Your task to perform on an android device: Open the calendar app, open the side menu, and click the "Day" option Image 0: 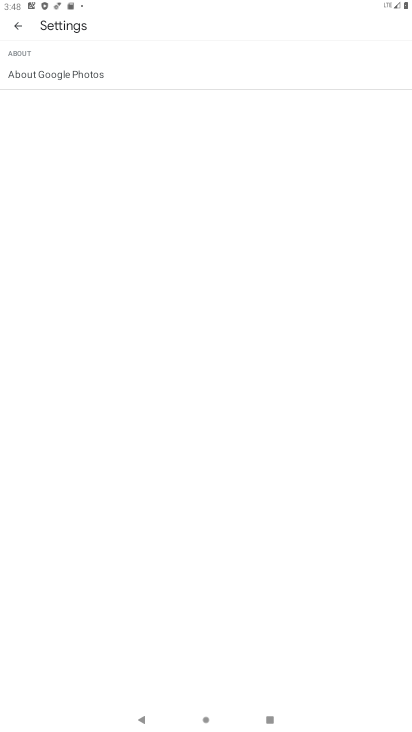
Step 0: press home button
Your task to perform on an android device: Open the calendar app, open the side menu, and click the "Day" option Image 1: 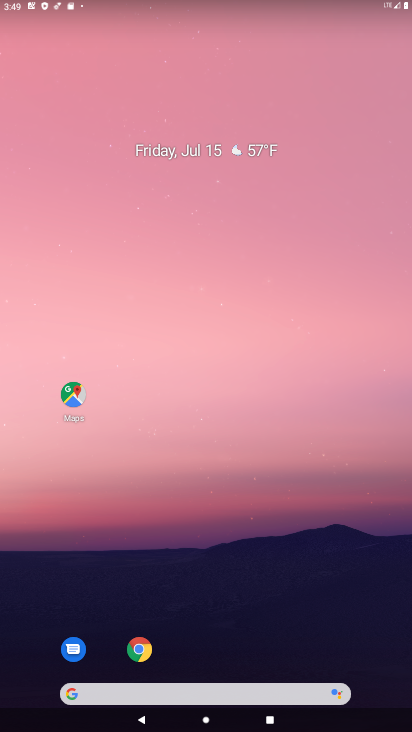
Step 1: drag from (214, 727) to (235, 180)
Your task to perform on an android device: Open the calendar app, open the side menu, and click the "Day" option Image 2: 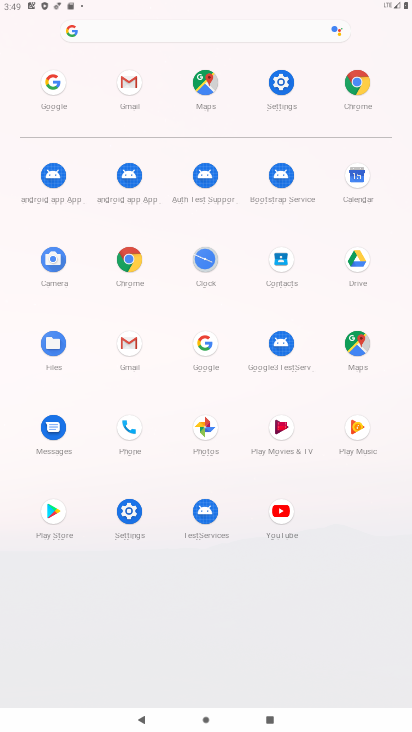
Step 2: click (359, 171)
Your task to perform on an android device: Open the calendar app, open the side menu, and click the "Day" option Image 3: 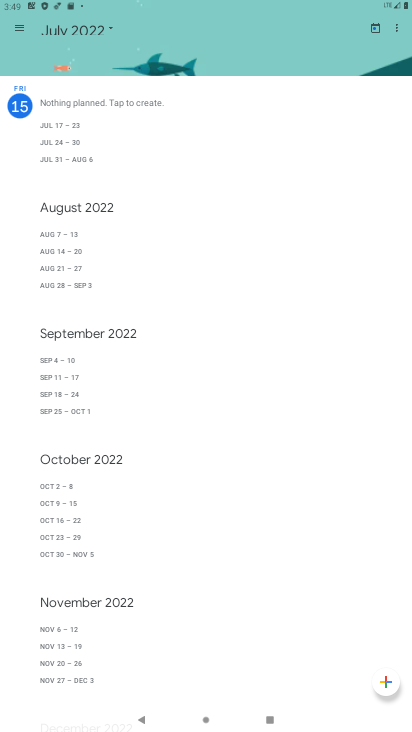
Step 3: click (21, 28)
Your task to perform on an android device: Open the calendar app, open the side menu, and click the "Day" option Image 4: 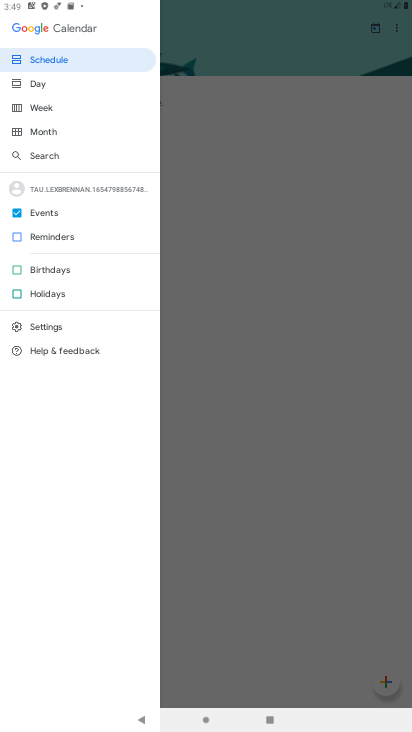
Step 4: click (36, 83)
Your task to perform on an android device: Open the calendar app, open the side menu, and click the "Day" option Image 5: 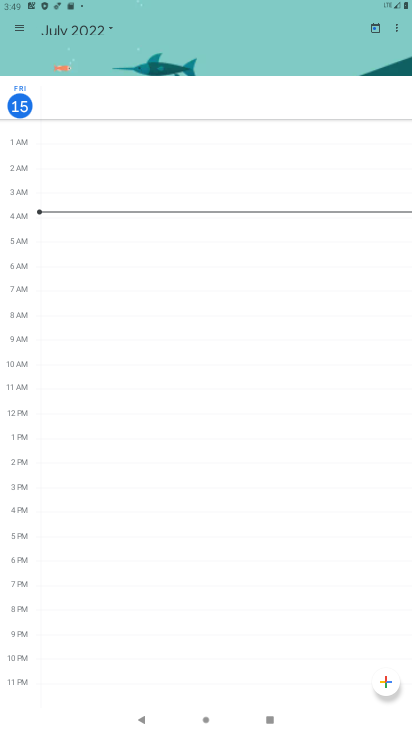
Step 5: task complete